Your task to perform on an android device: Open eBay Image 0: 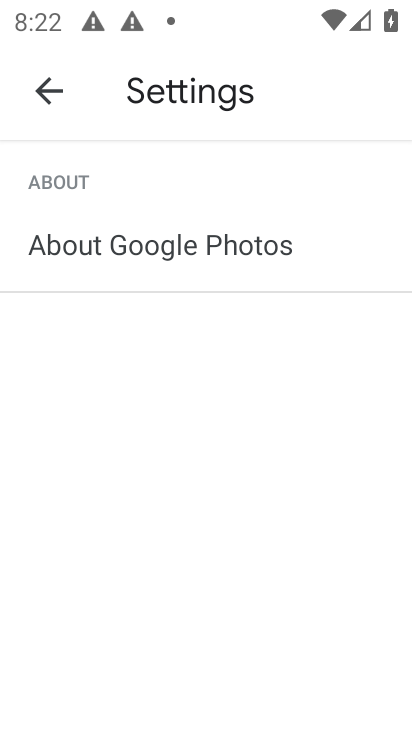
Step 0: press home button
Your task to perform on an android device: Open eBay Image 1: 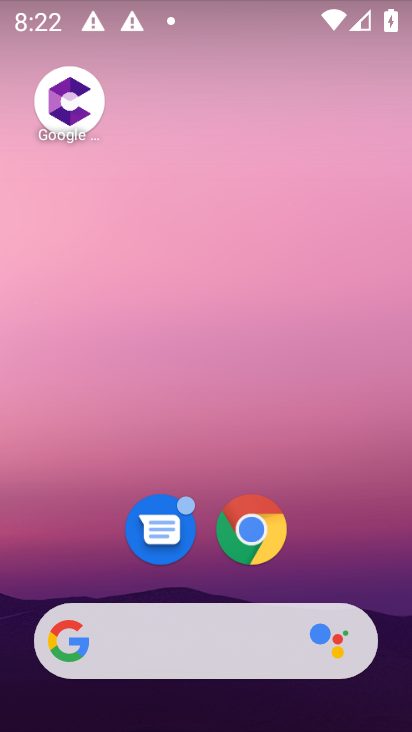
Step 1: drag from (194, 542) to (114, 4)
Your task to perform on an android device: Open eBay Image 2: 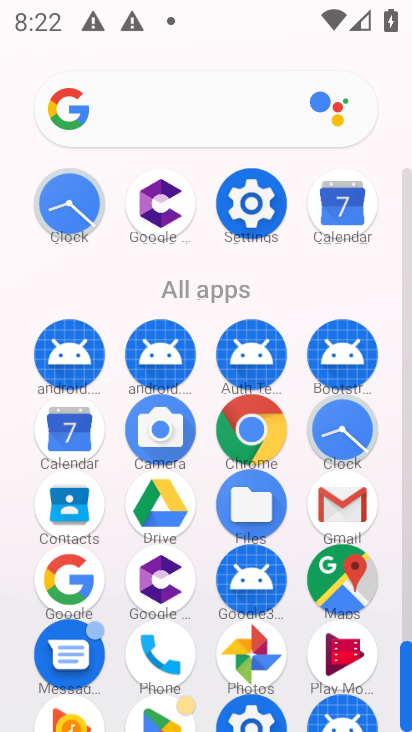
Step 2: click (250, 427)
Your task to perform on an android device: Open eBay Image 3: 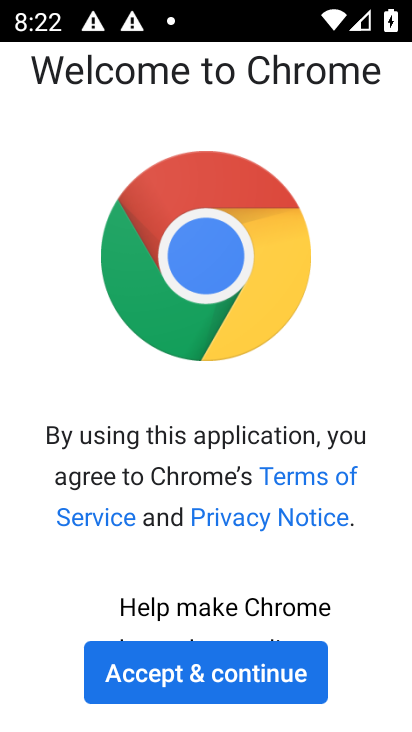
Step 3: click (244, 686)
Your task to perform on an android device: Open eBay Image 4: 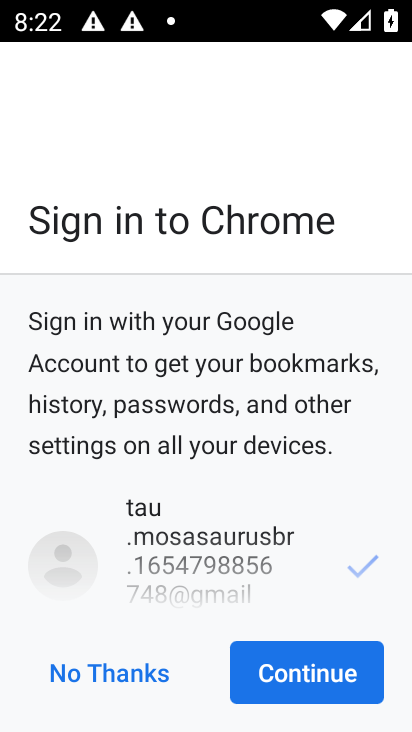
Step 4: click (254, 685)
Your task to perform on an android device: Open eBay Image 5: 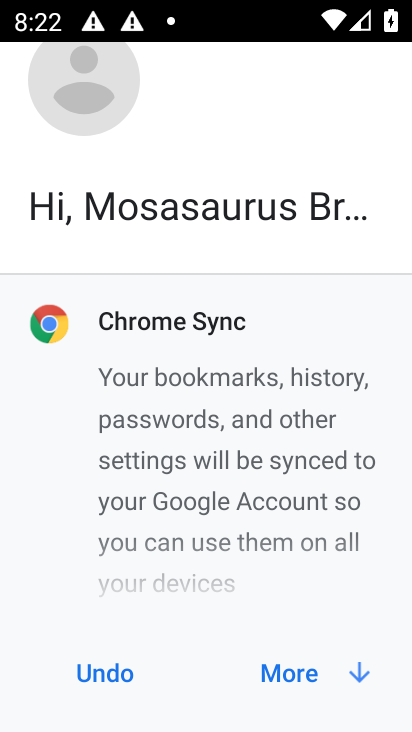
Step 5: click (286, 671)
Your task to perform on an android device: Open eBay Image 6: 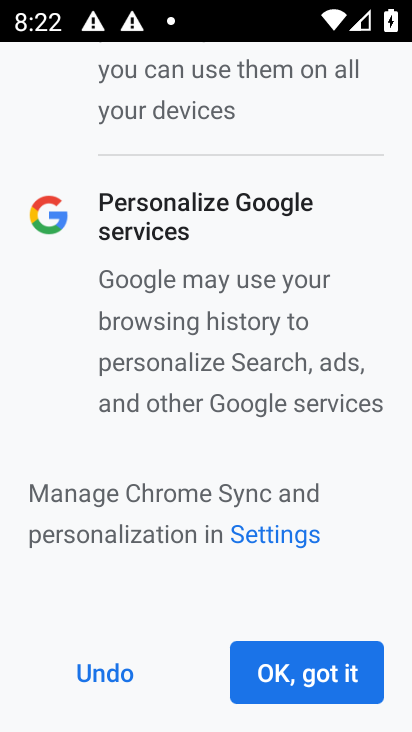
Step 6: click (285, 672)
Your task to perform on an android device: Open eBay Image 7: 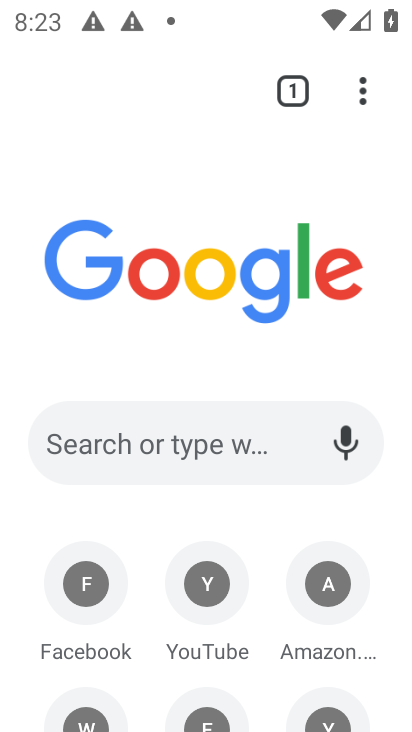
Step 7: drag from (238, 637) to (254, 402)
Your task to perform on an android device: Open eBay Image 8: 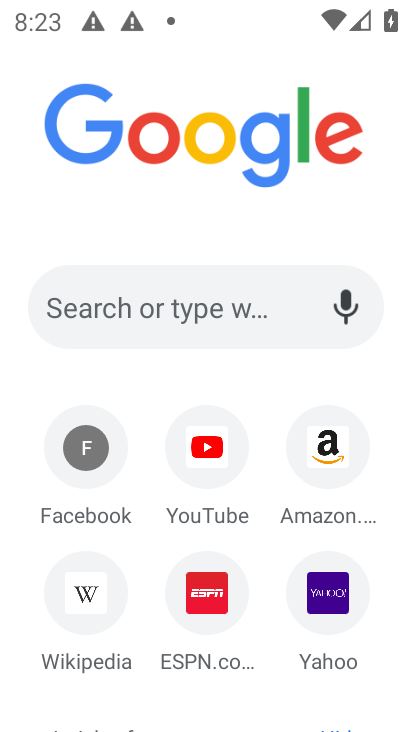
Step 8: click (200, 319)
Your task to perform on an android device: Open eBay Image 9: 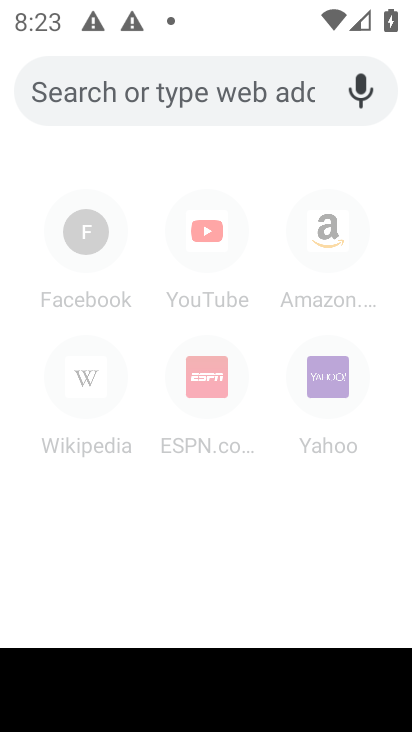
Step 9: type "Ebay"
Your task to perform on an android device: Open eBay Image 10: 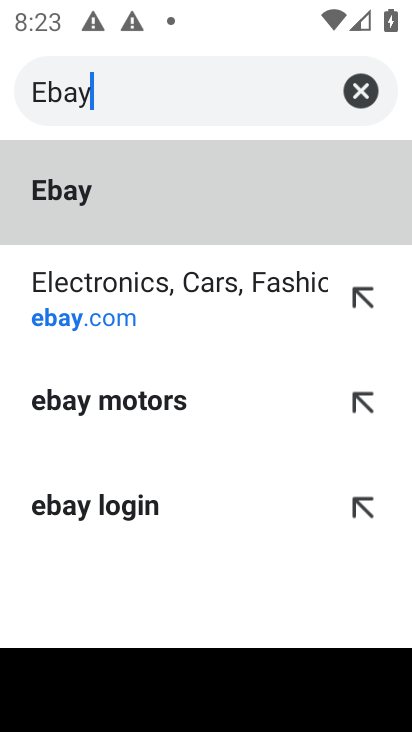
Step 10: click (132, 226)
Your task to perform on an android device: Open eBay Image 11: 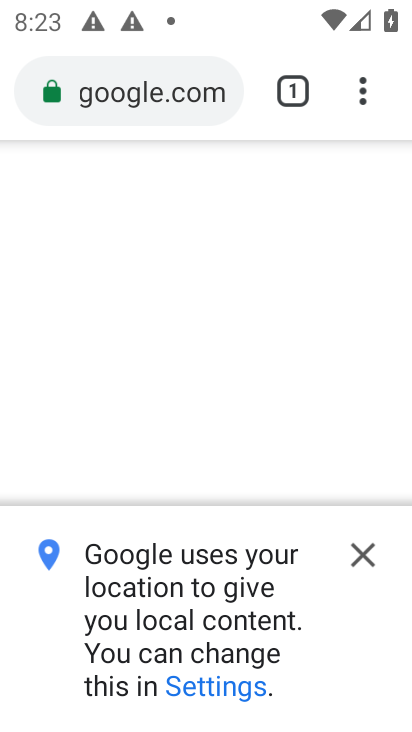
Step 11: click (361, 550)
Your task to perform on an android device: Open eBay Image 12: 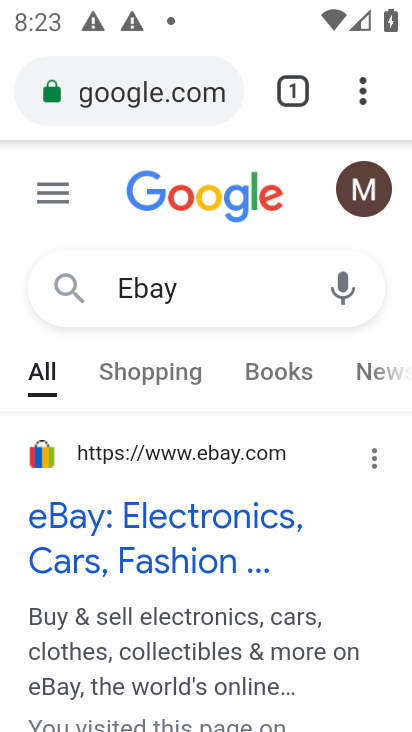
Step 12: task complete